Your task to perform on an android device: turn on sleep mode Image 0: 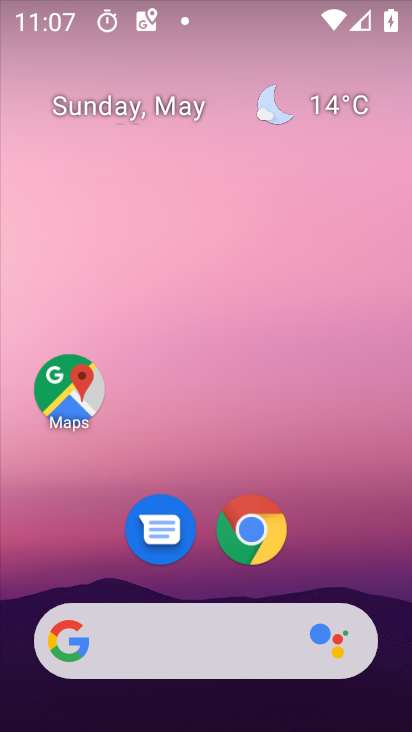
Step 0: drag from (217, 620) to (195, 0)
Your task to perform on an android device: turn on sleep mode Image 1: 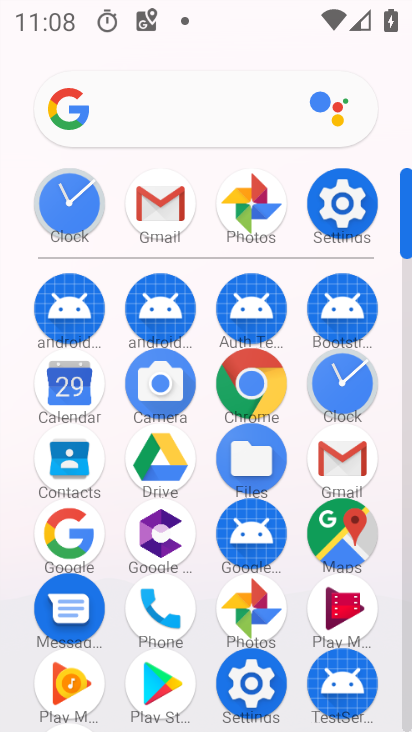
Step 1: click (348, 217)
Your task to perform on an android device: turn on sleep mode Image 2: 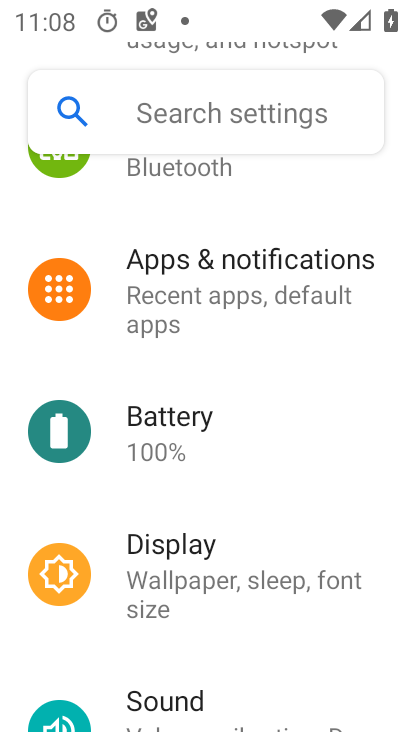
Step 2: click (348, 217)
Your task to perform on an android device: turn on sleep mode Image 3: 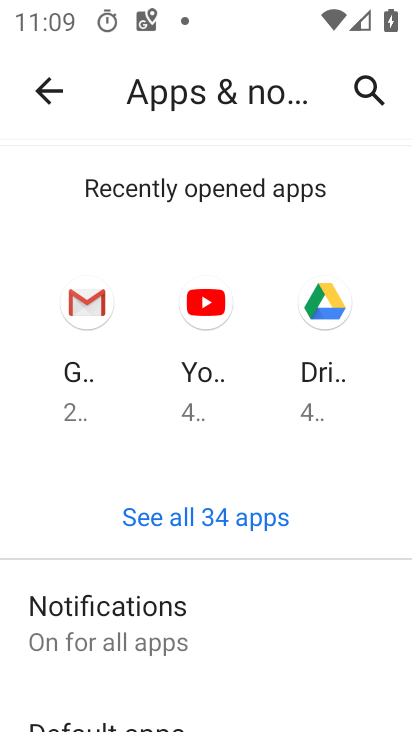
Step 3: task complete